Your task to perform on an android device: Open Google Chrome and open the bookmarks view Image 0: 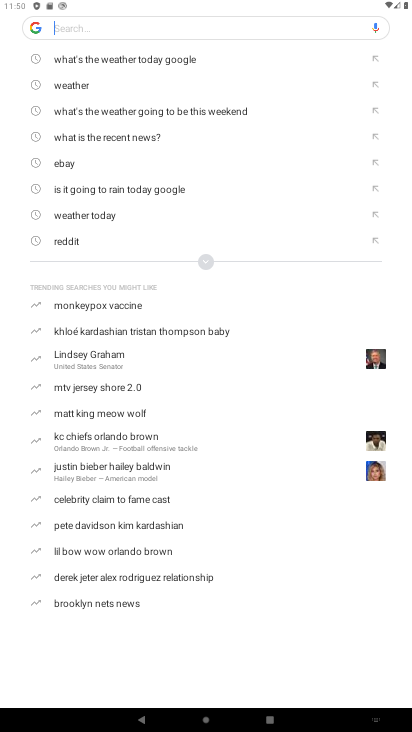
Step 0: press home button
Your task to perform on an android device: Open Google Chrome and open the bookmarks view Image 1: 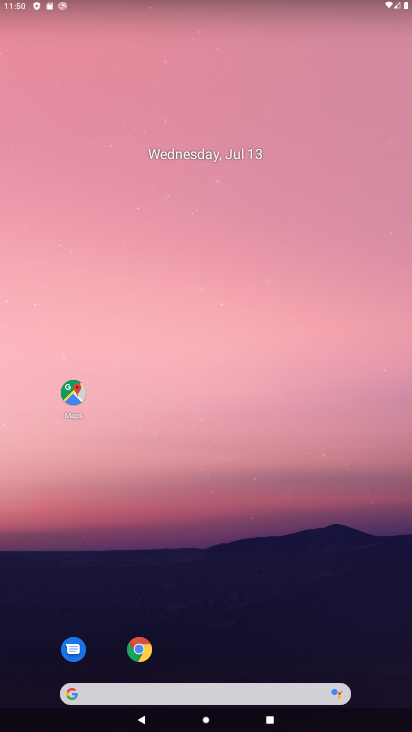
Step 1: click (138, 653)
Your task to perform on an android device: Open Google Chrome and open the bookmarks view Image 2: 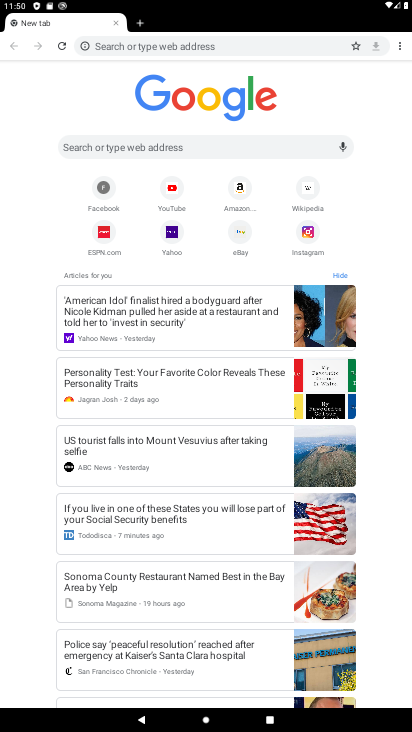
Step 2: click (400, 51)
Your task to perform on an android device: Open Google Chrome and open the bookmarks view Image 3: 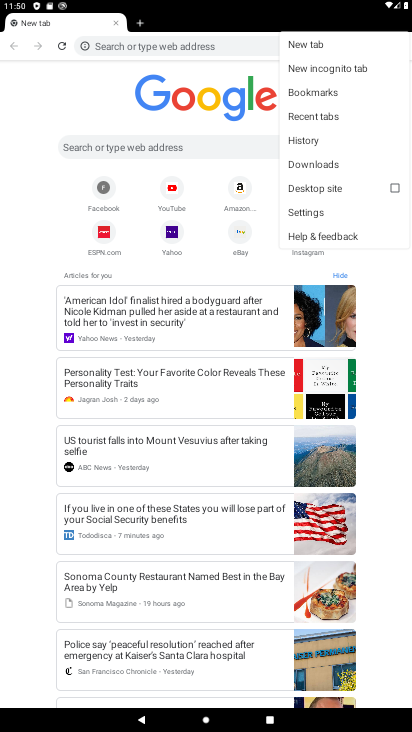
Step 3: click (306, 90)
Your task to perform on an android device: Open Google Chrome and open the bookmarks view Image 4: 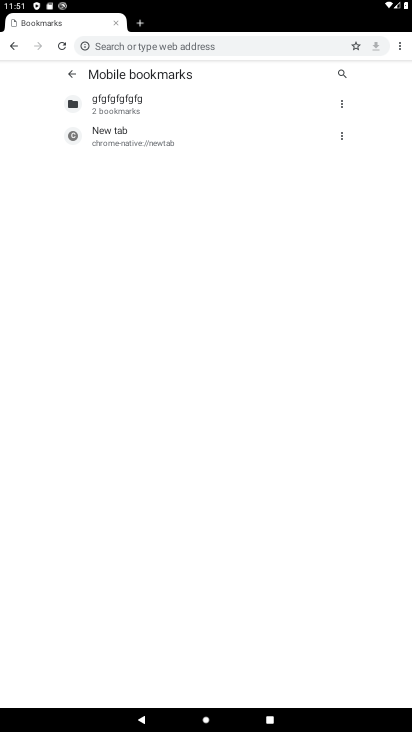
Step 4: task complete